Your task to perform on an android device: find snoozed emails in the gmail app Image 0: 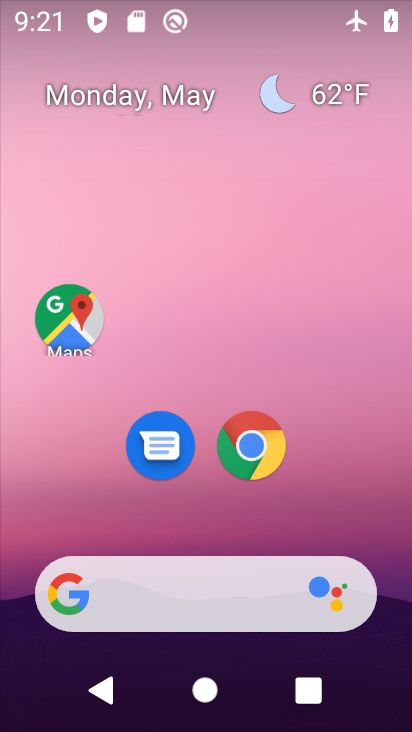
Step 0: drag from (394, 614) to (295, 0)
Your task to perform on an android device: find snoozed emails in the gmail app Image 1: 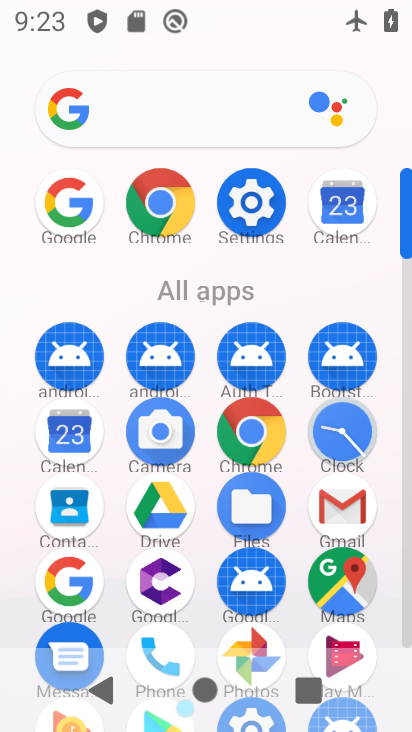
Step 1: click (330, 524)
Your task to perform on an android device: find snoozed emails in the gmail app Image 2: 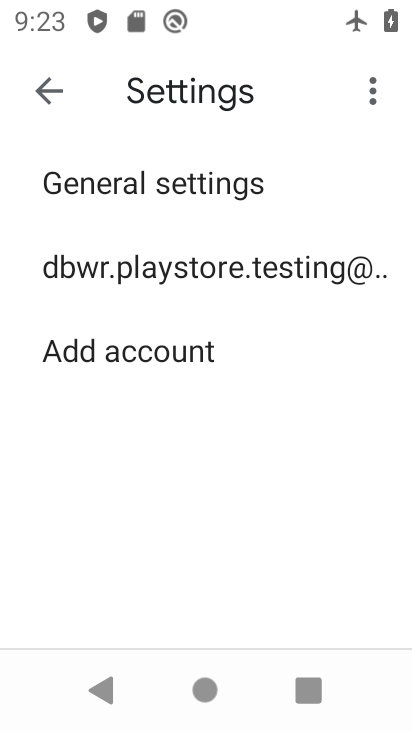
Step 2: press back button
Your task to perform on an android device: find snoozed emails in the gmail app Image 3: 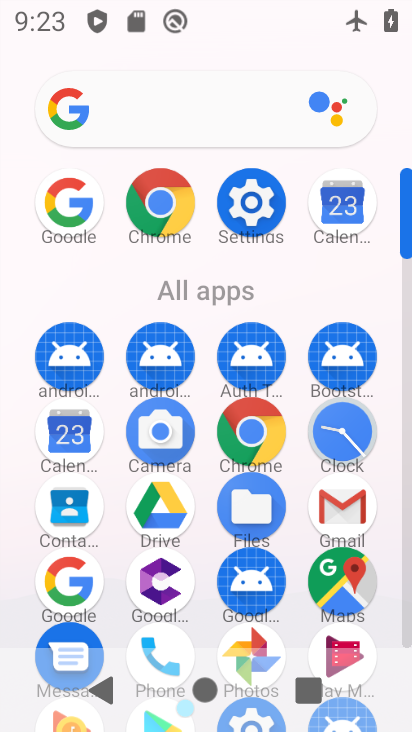
Step 3: click (311, 521)
Your task to perform on an android device: find snoozed emails in the gmail app Image 4: 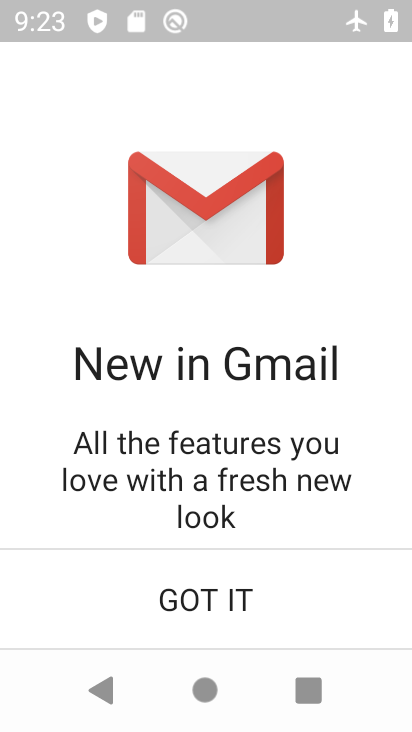
Step 4: click (207, 612)
Your task to perform on an android device: find snoozed emails in the gmail app Image 5: 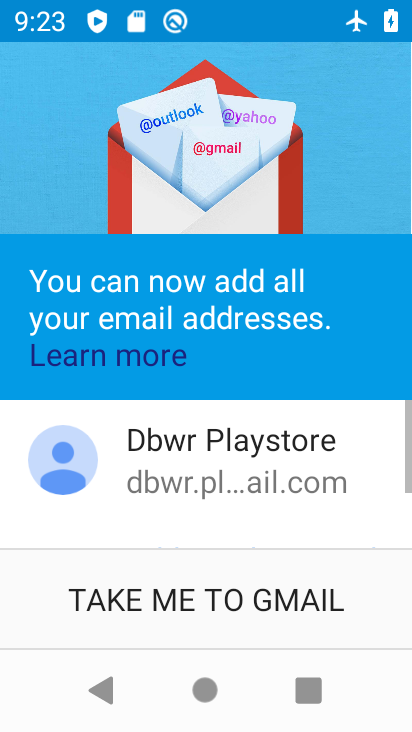
Step 5: click (207, 611)
Your task to perform on an android device: find snoozed emails in the gmail app Image 6: 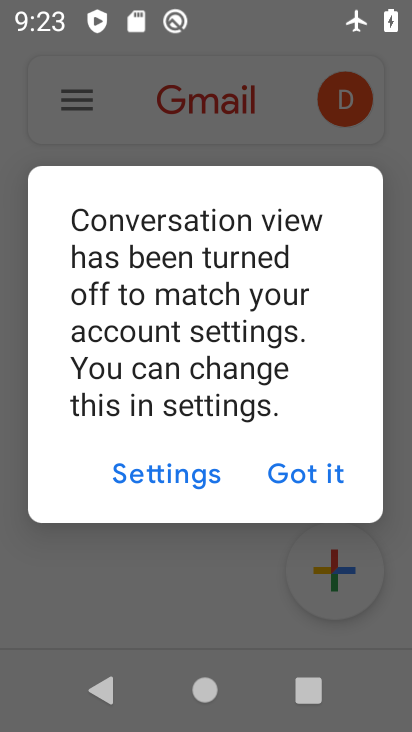
Step 6: click (325, 478)
Your task to perform on an android device: find snoozed emails in the gmail app Image 7: 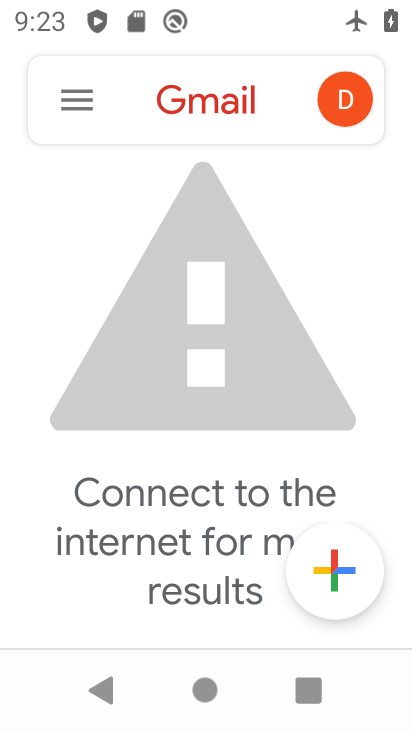
Step 7: click (77, 106)
Your task to perform on an android device: find snoozed emails in the gmail app Image 8: 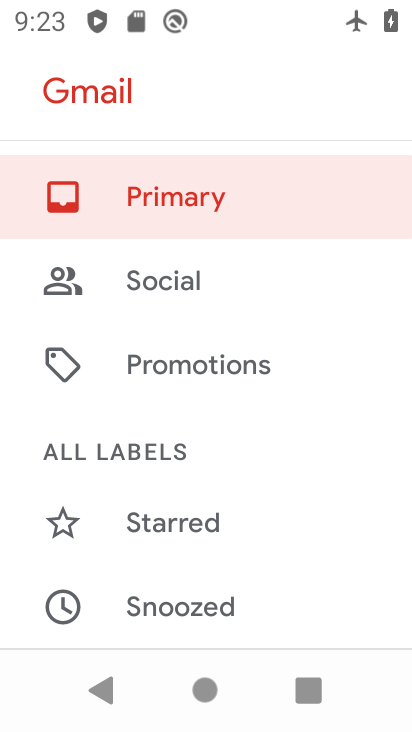
Step 8: click (179, 599)
Your task to perform on an android device: find snoozed emails in the gmail app Image 9: 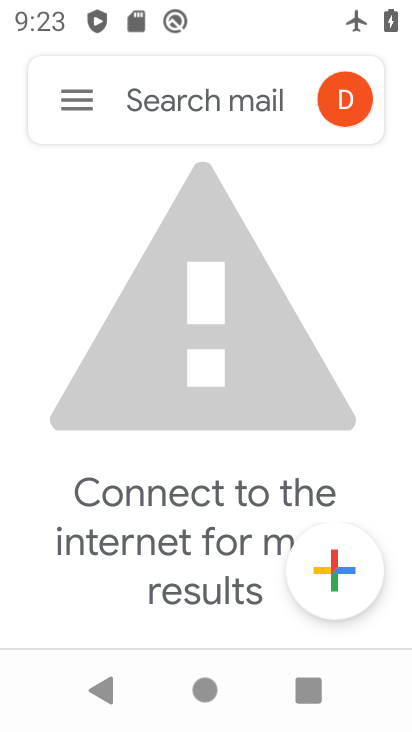
Step 9: task complete